Your task to perform on an android device: change the upload size in google photos Image 0: 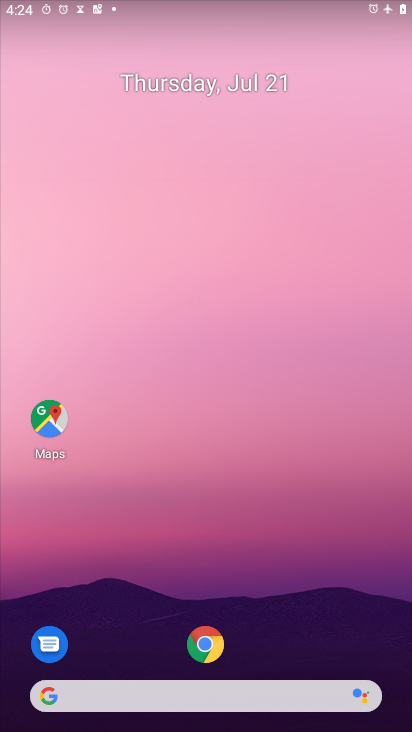
Step 0: press home button
Your task to perform on an android device: change the upload size in google photos Image 1: 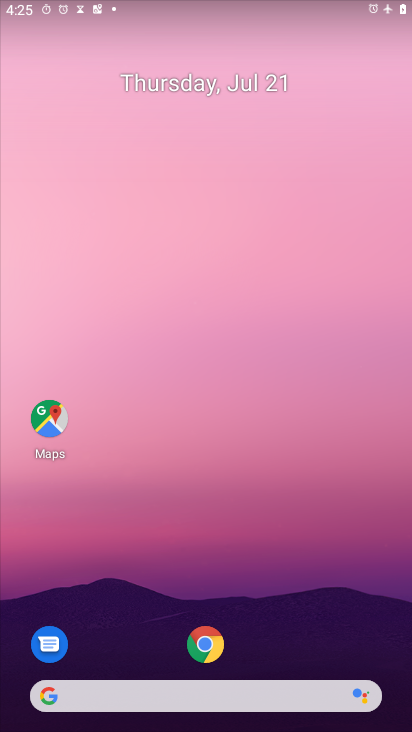
Step 1: drag from (294, 638) to (288, 171)
Your task to perform on an android device: change the upload size in google photos Image 2: 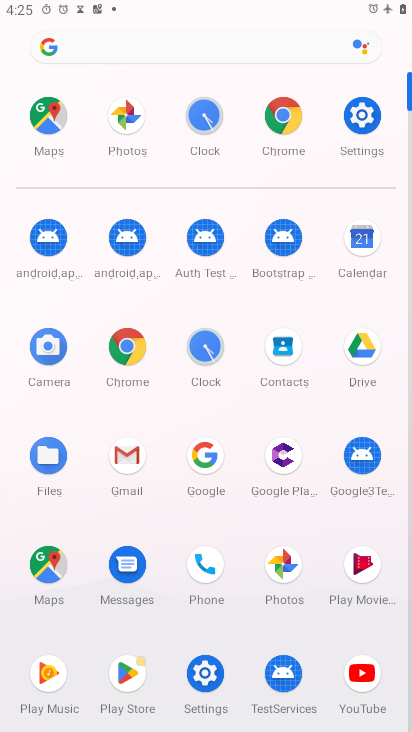
Step 2: click (281, 571)
Your task to perform on an android device: change the upload size in google photos Image 3: 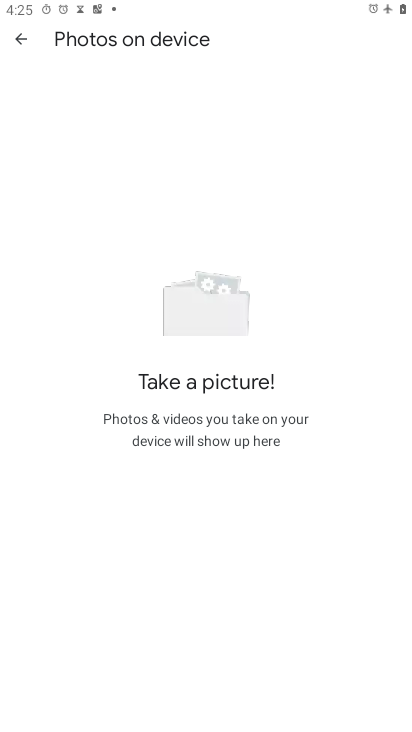
Step 3: click (24, 40)
Your task to perform on an android device: change the upload size in google photos Image 4: 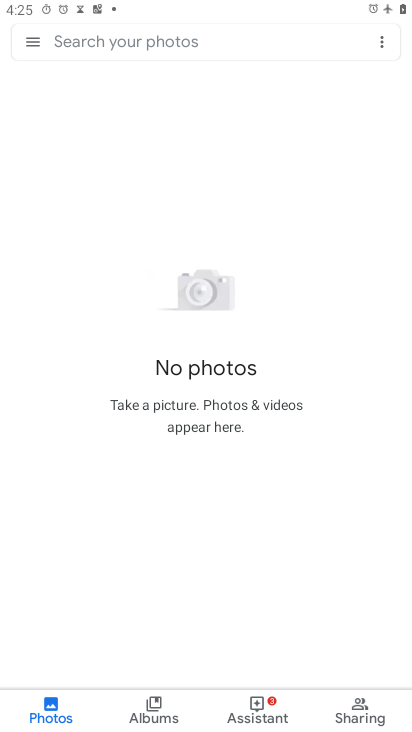
Step 4: click (32, 35)
Your task to perform on an android device: change the upload size in google photos Image 5: 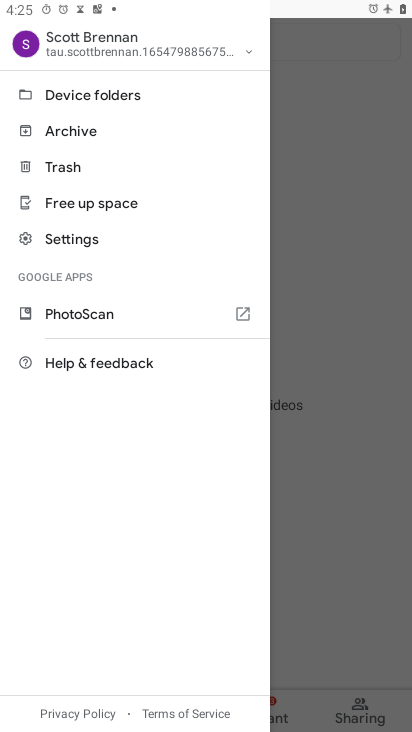
Step 5: click (77, 240)
Your task to perform on an android device: change the upload size in google photos Image 6: 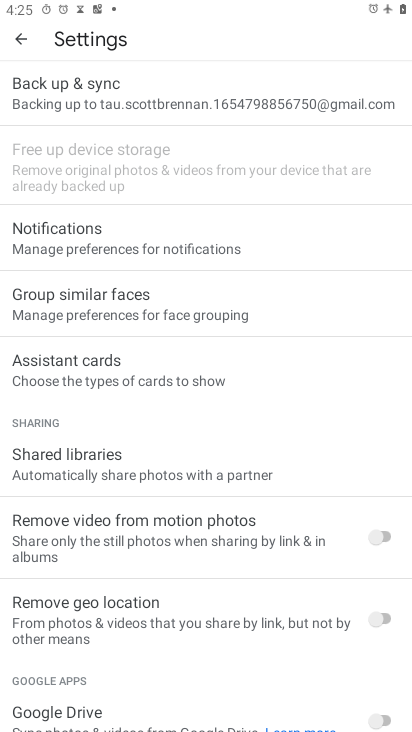
Step 6: click (61, 87)
Your task to perform on an android device: change the upload size in google photos Image 7: 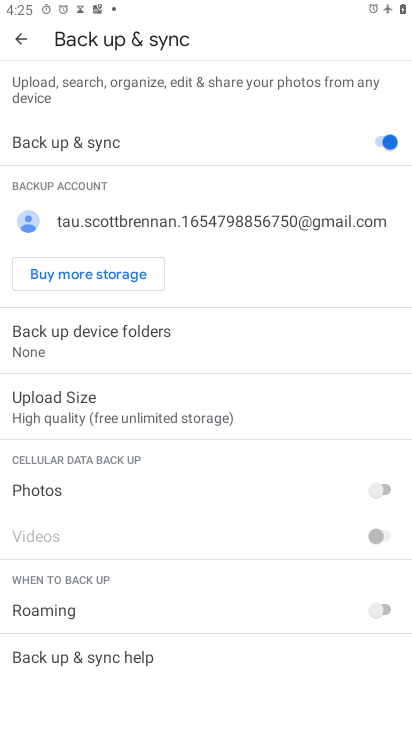
Step 7: click (108, 414)
Your task to perform on an android device: change the upload size in google photos Image 8: 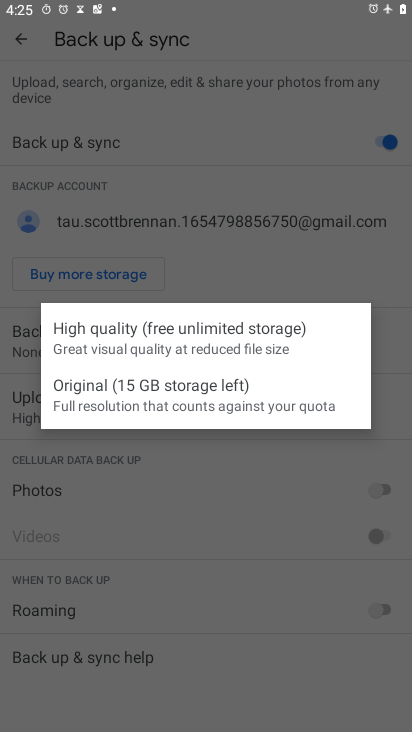
Step 8: click (97, 395)
Your task to perform on an android device: change the upload size in google photos Image 9: 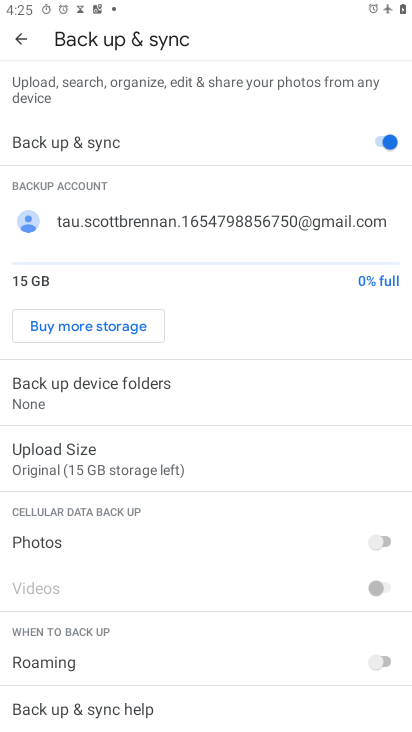
Step 9: task complete